Your task to perform on an android device: Open Android settings Image 0: 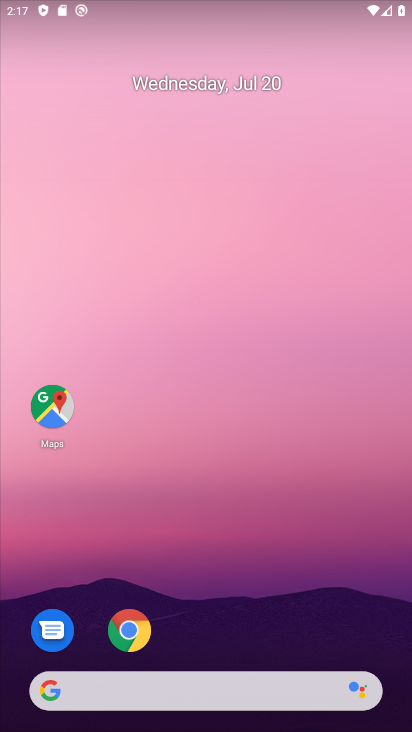
Step 0: drag from (214, 589) to (334, 8)
Your task to perform on an android device: Open Android settings Image 1: 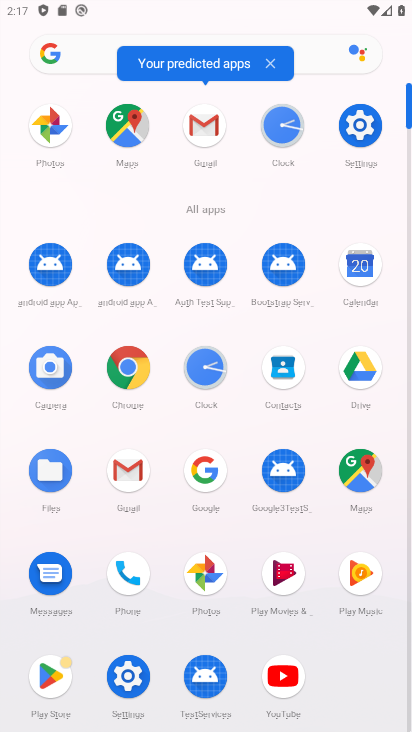
Step 1: click (361, 138)
Your task to perform on an android device: Open Android settings Image 2: 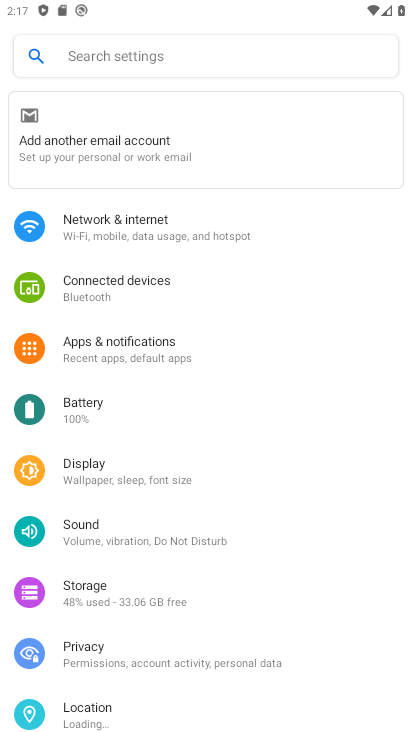
Step 2: drag from (179, 623) to (209, 80)
Your task to perform on an android device: Open Android settings Image 3: 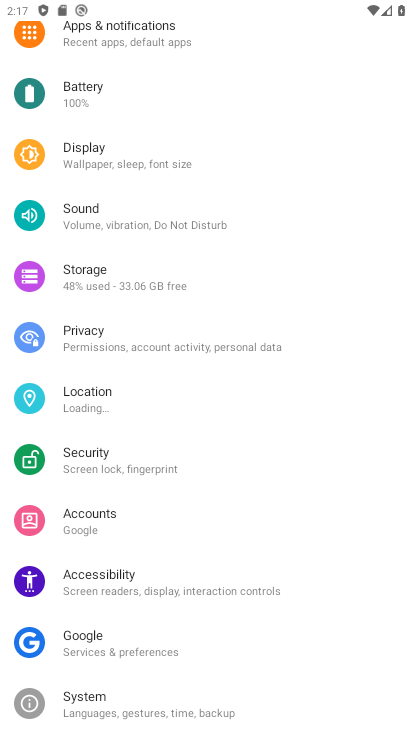
Step 3: click (86, 718)
Your task to perform on an android device: Open Android settings Image 4: 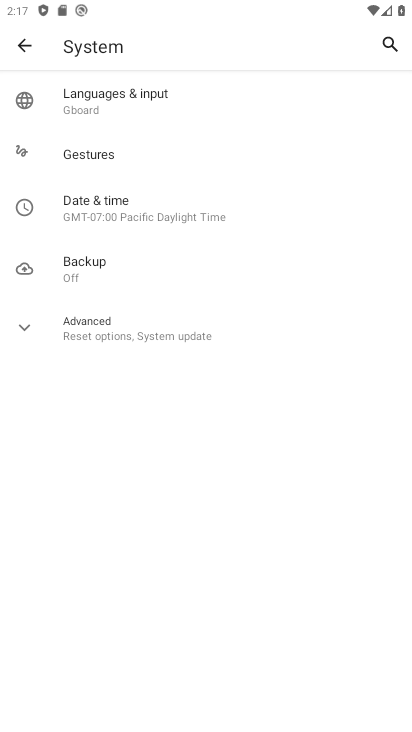
Step 4: task complete